Your task to perform on an android device: check google app version Image 0: 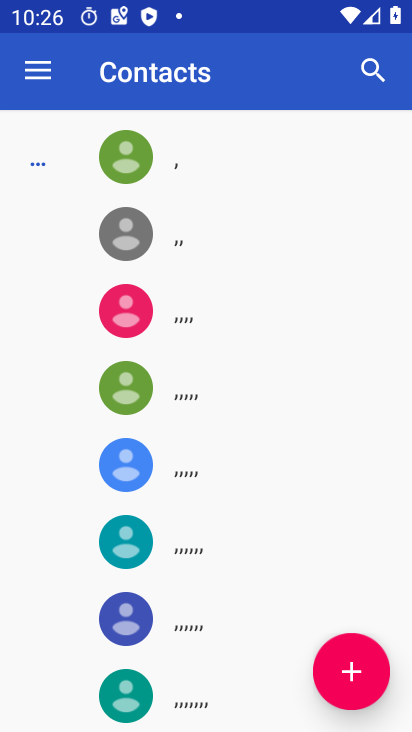
Step 0: press home button
Your task to perform on an android device: check google app version Image 1: 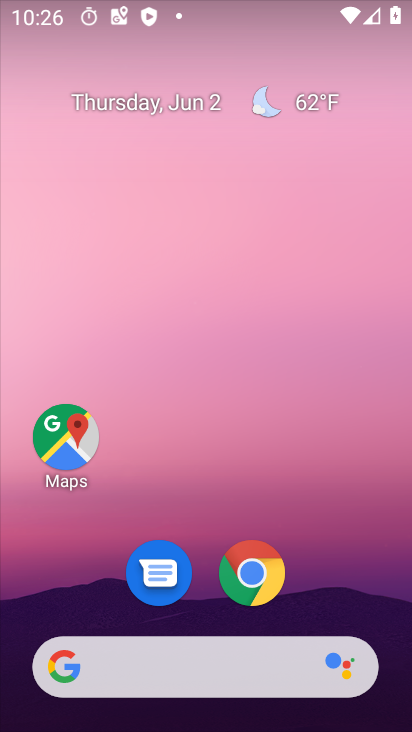
Step 1: drag from (250, 628) to (387, 108)
Your task to perform on an android device: check google app version Image 2: 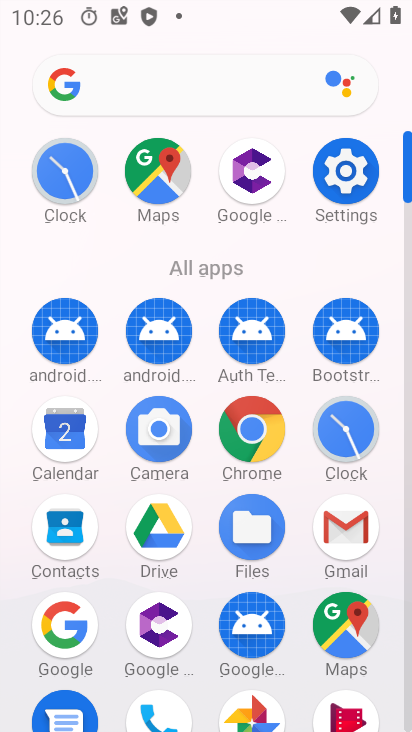
Step 2: click (69, 604)
Your task to perform on an android device: check google app version Image 3: 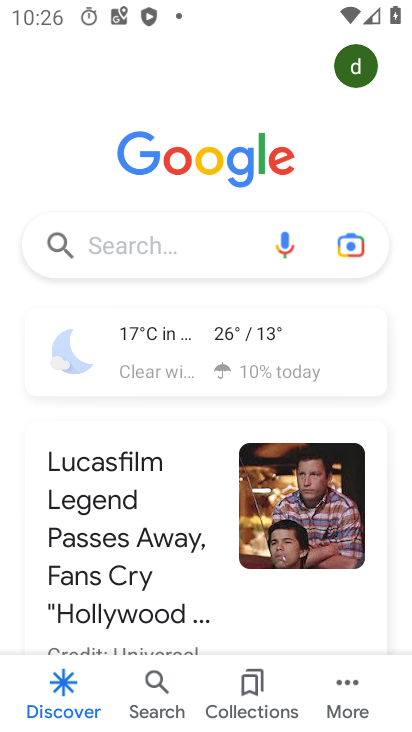
Step 3: click (346, 686)
Your task to perform on an android device: check google app version Image 4: 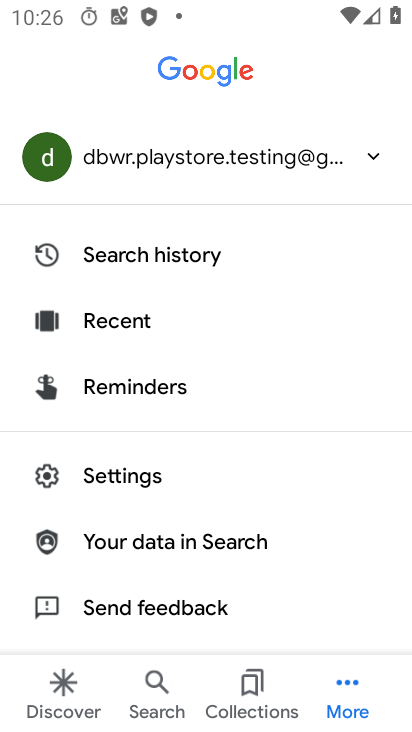
Step 4: drag from (200, 633) to (233, 201)
Your task to perform on an android device: check google app version Image 5: 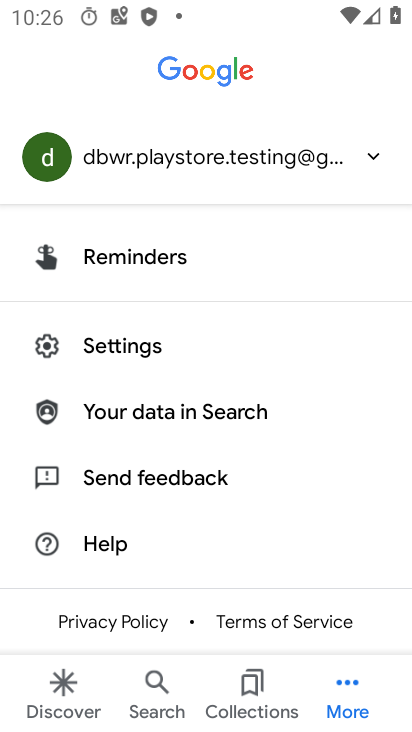
Step 5: click (143, 556)
Your task to perform on an android device: check google app version Image 6: 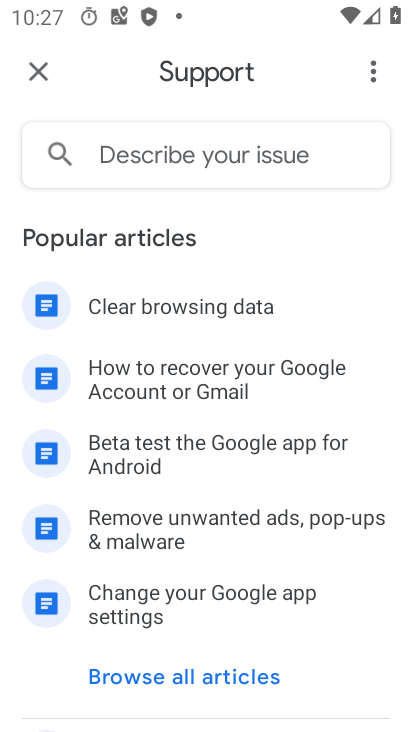
Step 6: click (372, 64)
Your task to perform on an android device: check google app version Image 7: 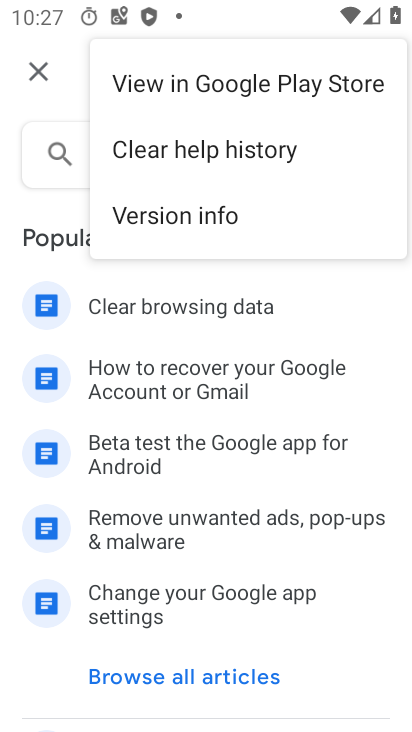
Step 7: click (237, 217)
Your task to perform on an android device: check google app version Image 8: 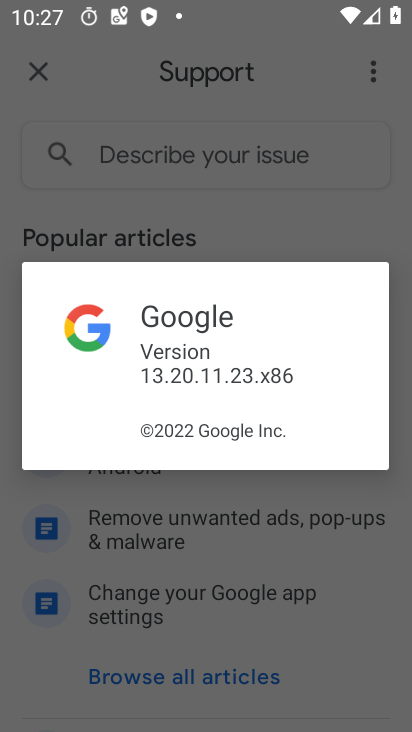
Step 8: task complete